Your task to perform on an android device: check storage Image 0: 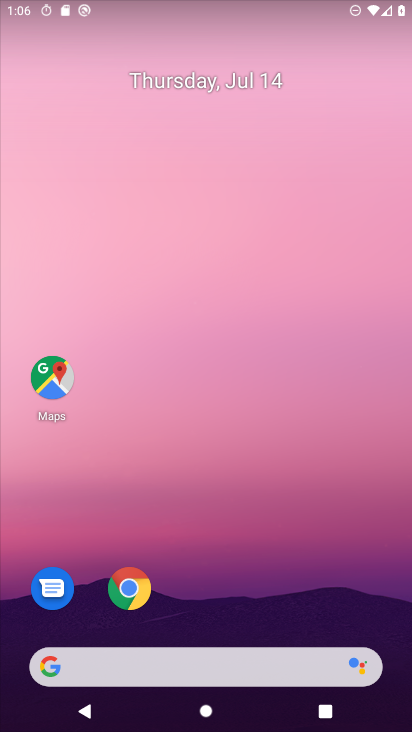
Step 0: drag from (185, 667) to (315, 99)
Your task to perform on an android device: check storage Image 1: 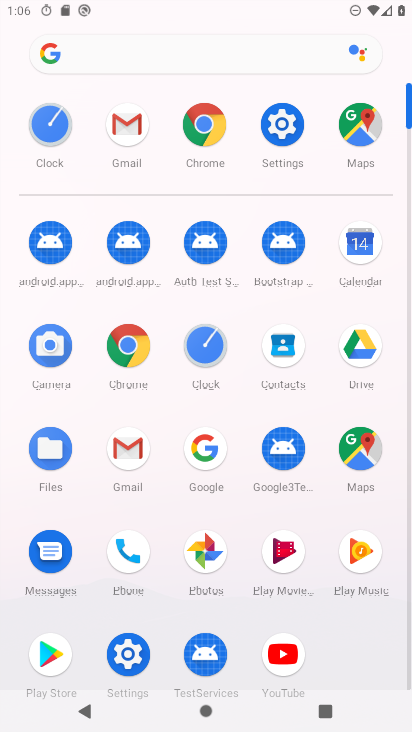
Step 1: click (296, 133)
Your task to perform on an android device: check storage Image 2: 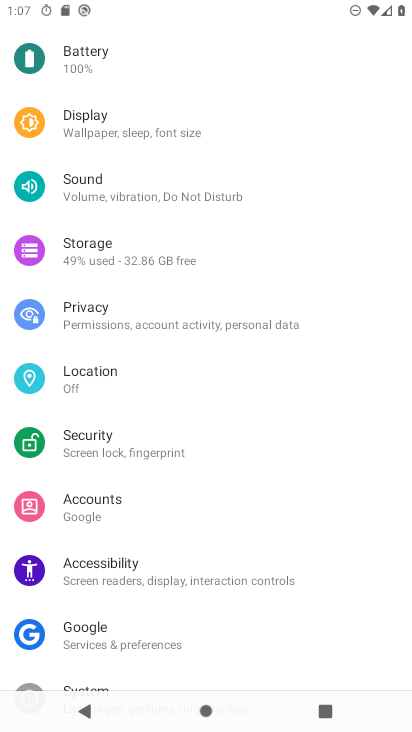
Step 2: click (119, 254)
Your task to perform on an android device: check storage Image 3: 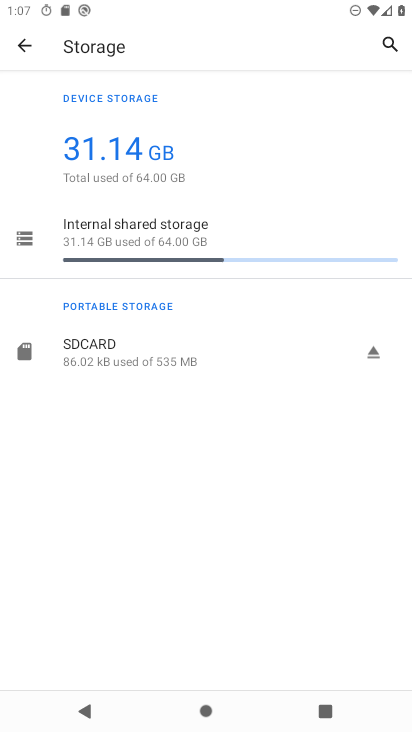
Step 3: task complete